Your task to perform on an android device: snooze an email in the gmail app Image 0: 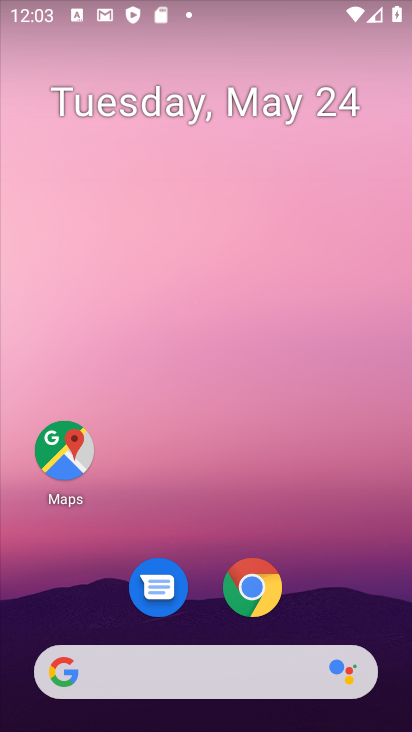
Step 0: drag from (278, 721) to (312, 193)
Your task to perform on an android device: snooze an email in the gmail app Image 1: 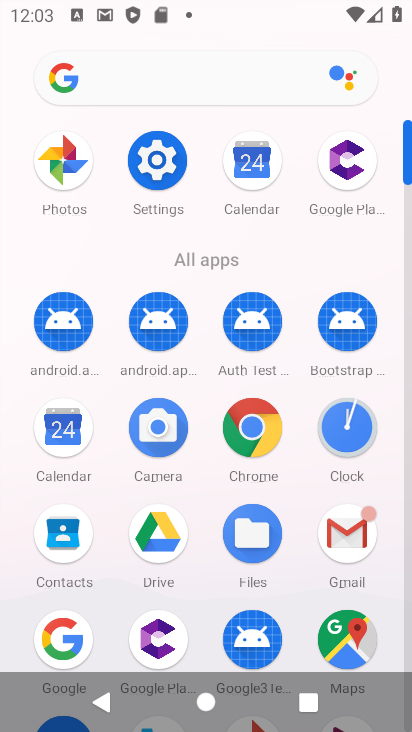
Step 1: click (367, 524)
Your task to perform on an android device: snooze an email in the gmail app Image 2: 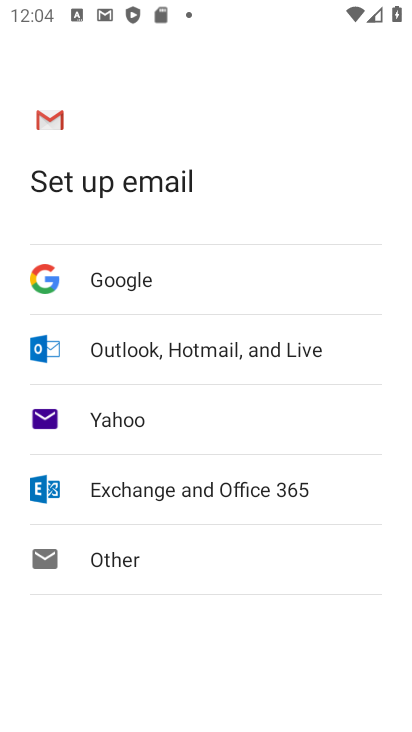
Step 2: press back button
Your task to perform on an android device: snooze an email in the gmail app Image 3: 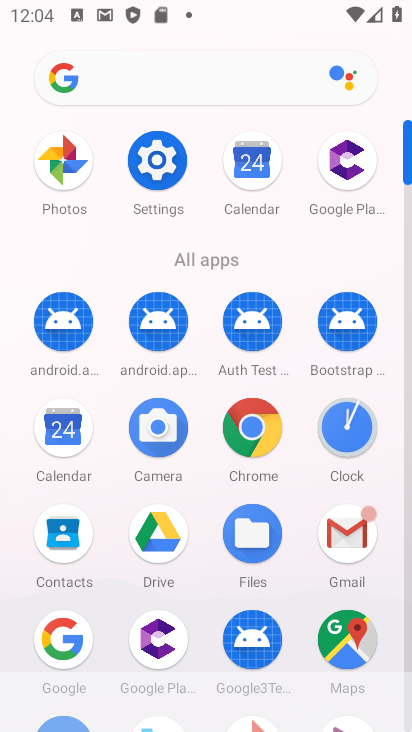
Step 3: click (352, 509)
Your task to perform on an android device: snooze an email in the gmail app Image 4: 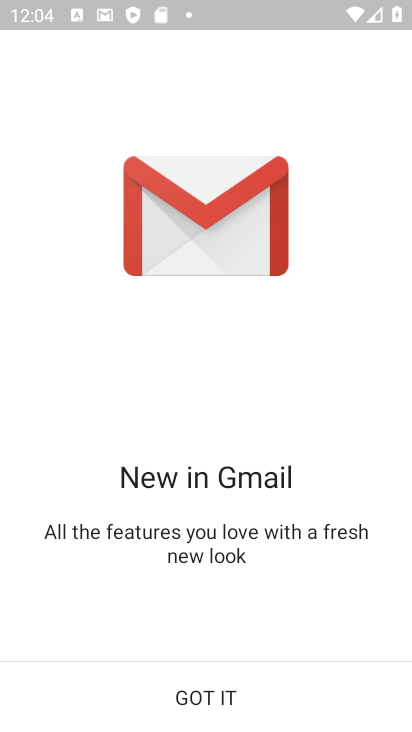
Step 4: click (333, 685)
Your task to perform on an android device: snooze an email in the gmail app Image 5: 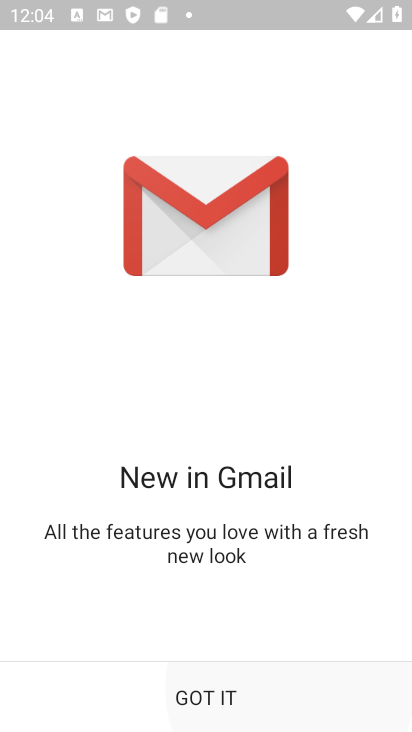
Step 5: click (333, 685)
Your task to perform on an android device: snooze an email in the gmail app Image 6: 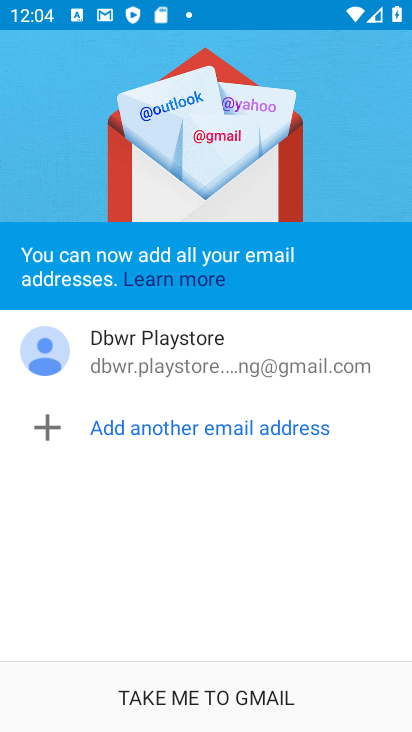
Step 6: click (333, 685)
Your task to perform on an android device: snooze an email in the gmail app Image 7: 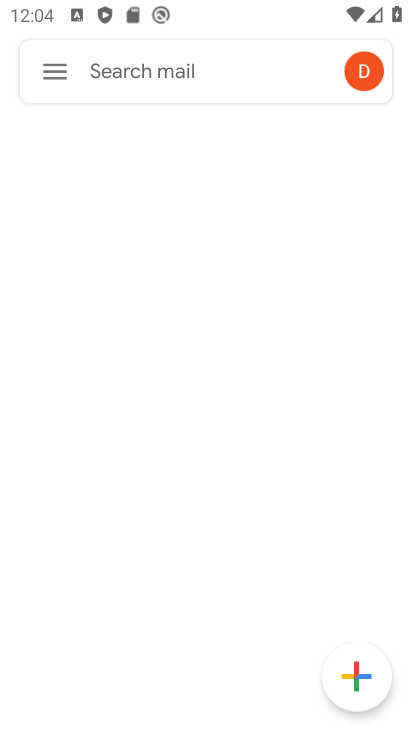
Step 7: click (241, 317)
Your task to perform on an android device: snooze an email in the gmail app Image 8: 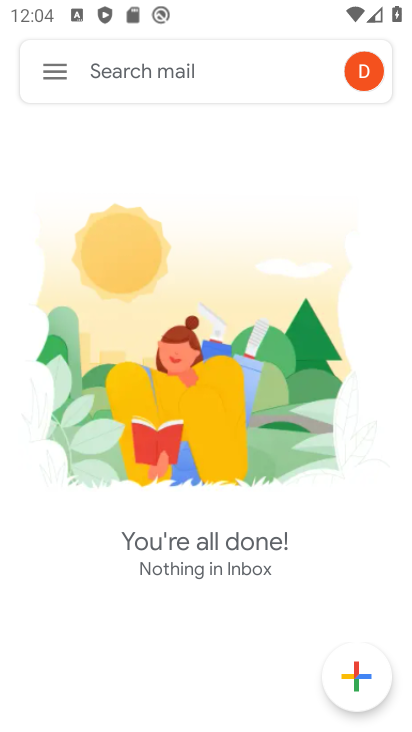
Step 8: task complete